Your task to perform on an android device: delete location history Image 0: 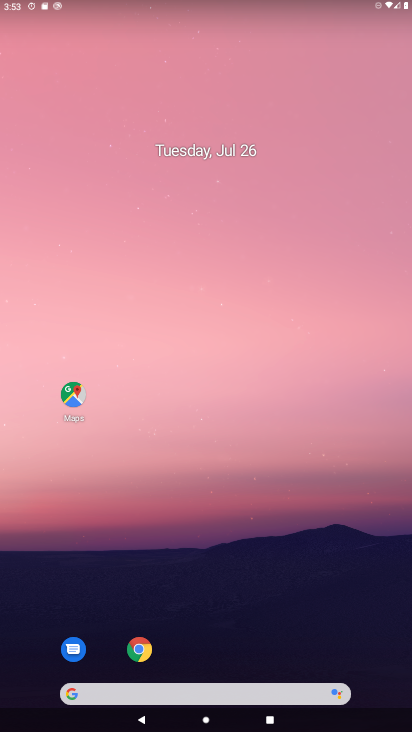
Step 0: drag from (365, 651) to (201, 11)
Your task to perform on an android device: delete location history Image 1: 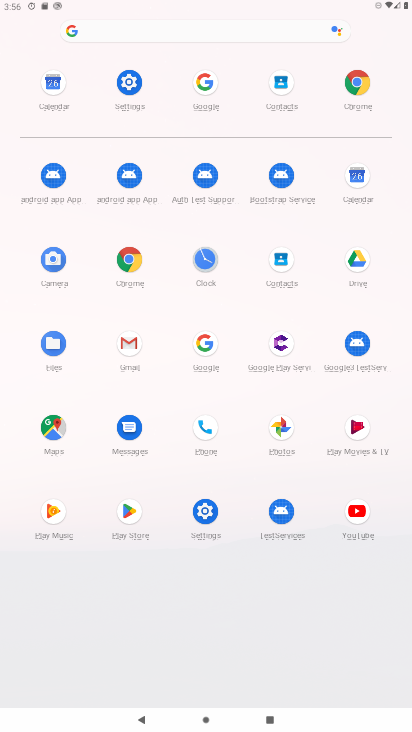
Step 1: click (216, 508)
Your task to perform on an android device: delete location history Image 2: 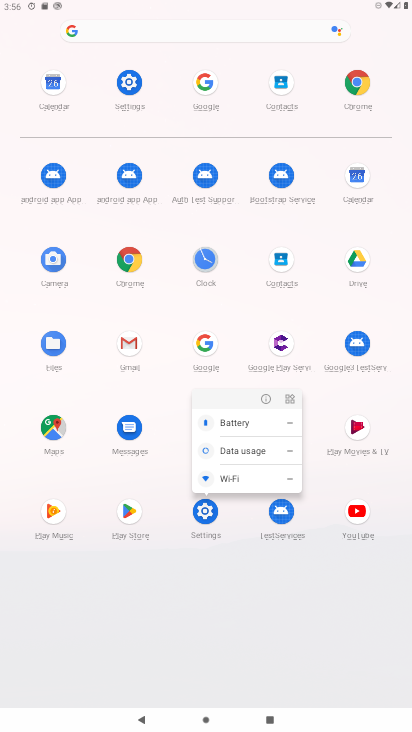
Step 2: click (215, 505)
Your task to perform on an android device: delete location history Image 3: 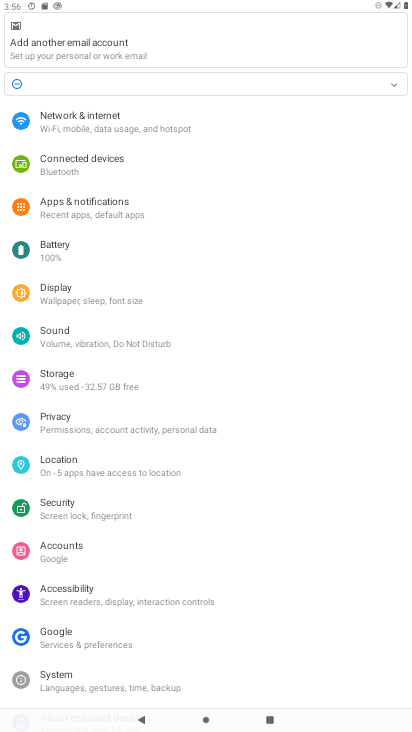
Step 3: click (75, 463)
Your task to perform on an android device: delete location history Image 4: 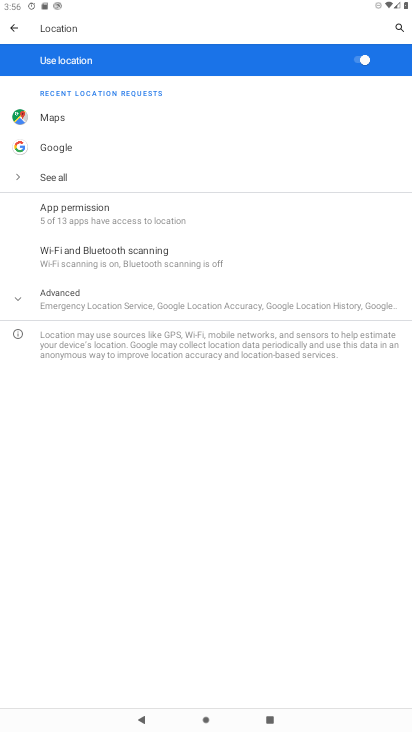
Step 4: click (65, 300)
Your task to perform on an android device: delete location history Image 5: 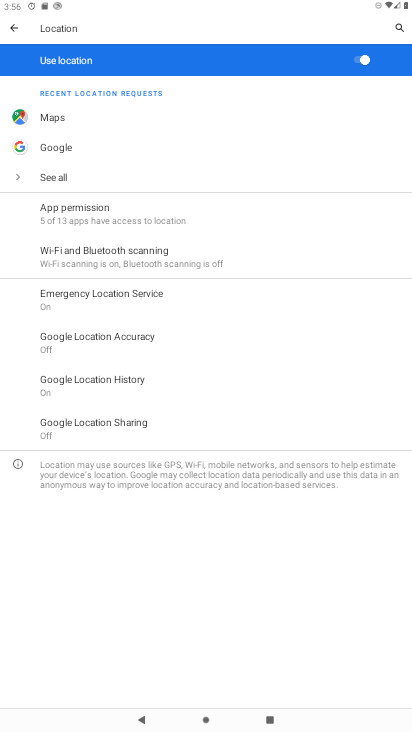
Step 5: click (114, 380)
Your task to perform on an android device: delete location history Image 6: 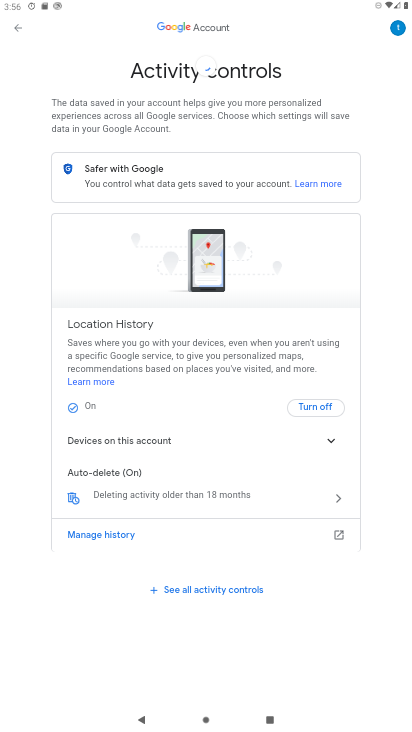
Step 6: click (144, 499)
Your task to perform on an android device: delete location history Image 7: 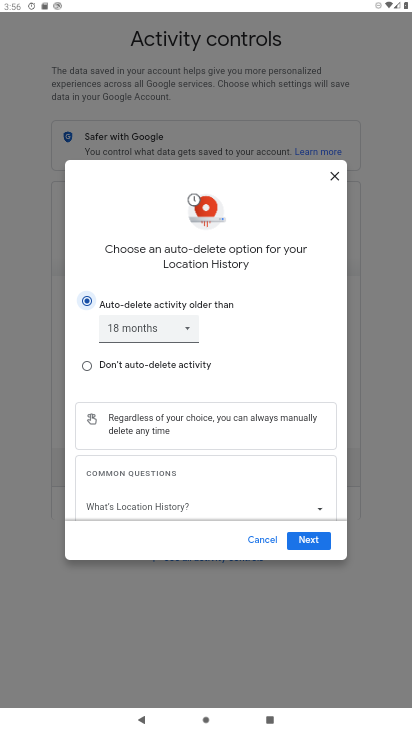
Step 7: click (288, 536)
Your task to perform on an android device: delete location history Image 8: 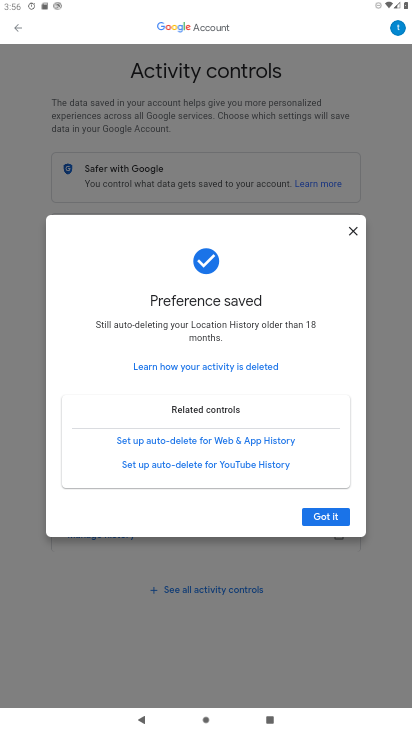
Step 8: click (328, 514)
Your task to perform on an android device: delete location history Image 9: 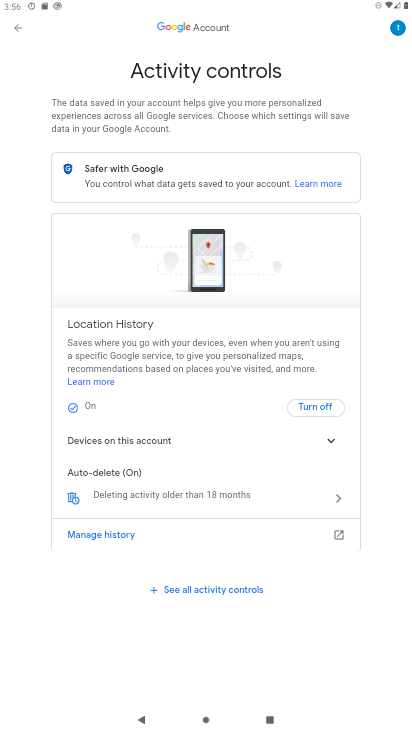
Step 9: task complete